Your task to perform on an android device: Open Google Chrome and click the shortcut for Amazon.com Image 0: 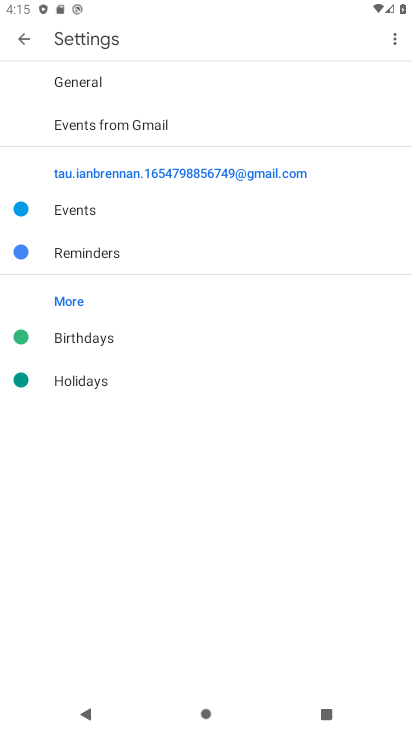
Step 0: press home button
Your task to perform on an android device: Open Google Chrome and click the shortcut for Amazon.com Image 1: 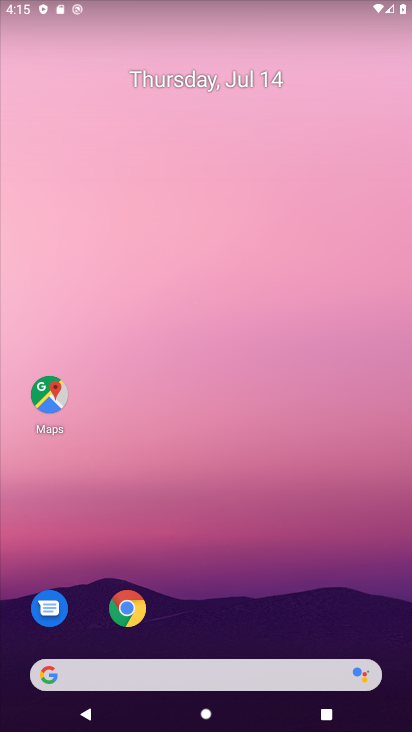
Step 1: click (136, 615)
Your task to perform on an android device: Open Google Chrome and click the shortcut for Amazon.com Image 2: 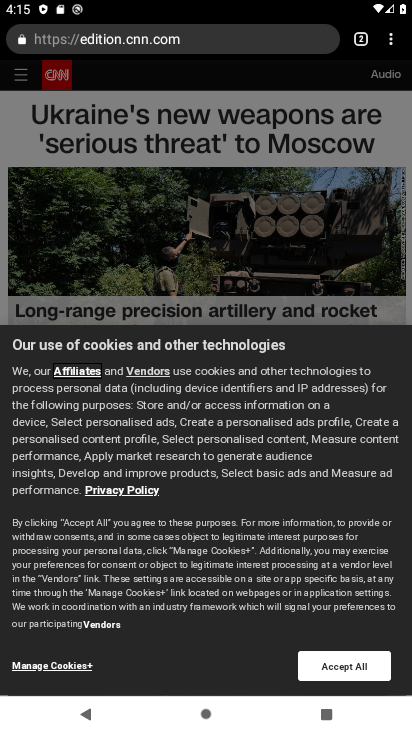
Step 2: click (367, 35)
Your task to perform on an android device: Open Google Chrome and click the shortcut for Amazon.com Image 3: 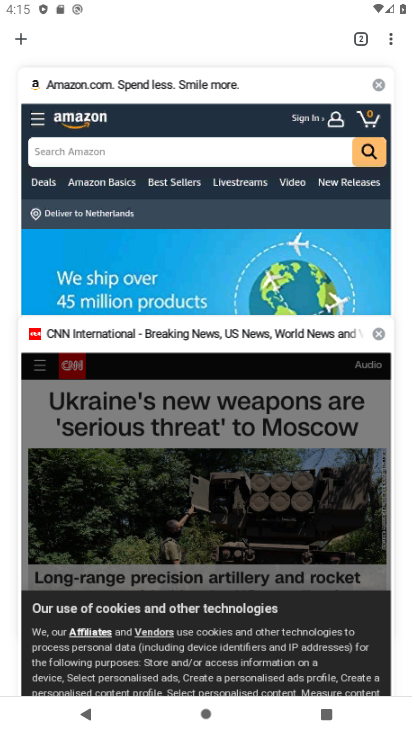
Step 3: click (18, 35)
Your task to perform on an android device: Open Google Chrome and click the shortcut for Amazon.com Image 4: 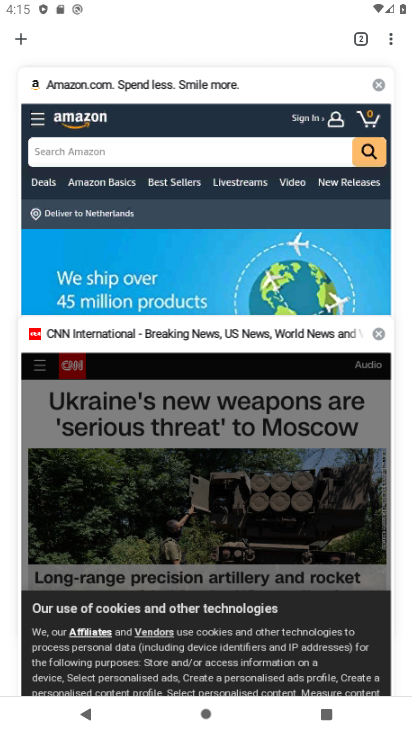
Step 4: click (115, 166)
Your task to perform on an android device: Open Google Chrome and click the shortcut for Amazon.com Image 5: 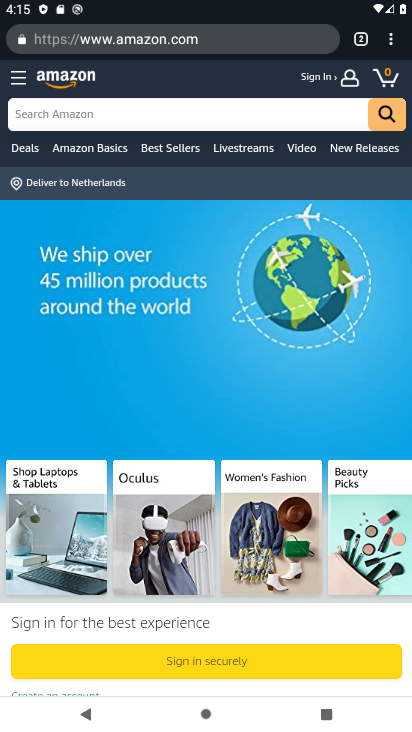
Step 5: task complete